Your task to perform on an android device: toggle wifi Image 0: 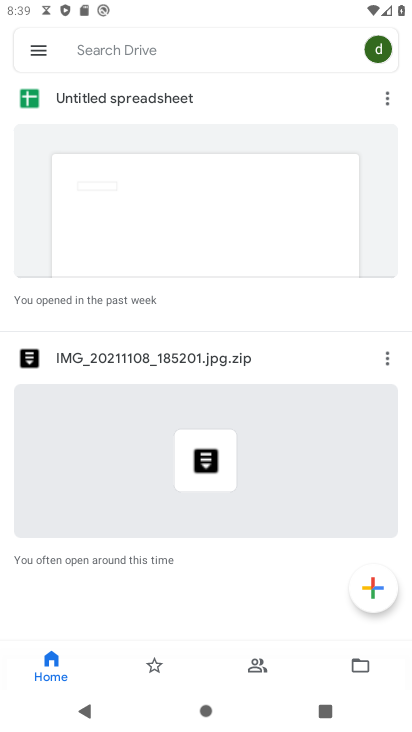
Step 0: press back button
Your task to perform on an android device: toggle wifi Image 1: 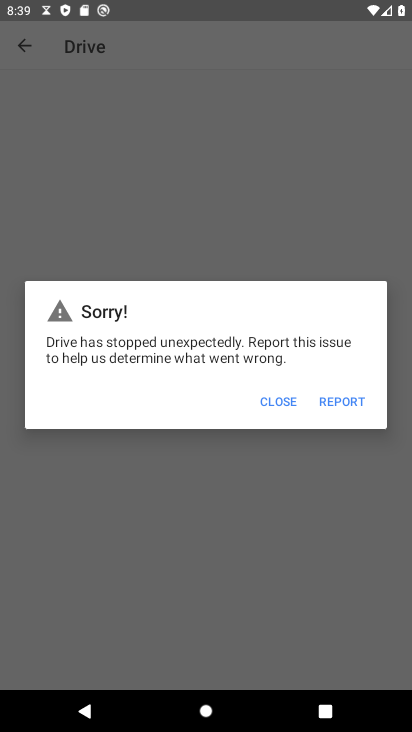
Step 1: press home button
Your task to perform on an android device: toggle wifi Image 2: 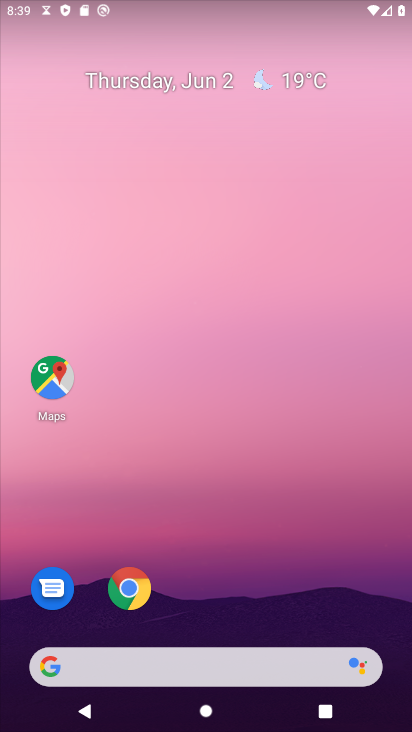
Step 2: drag from (137, 27) to (166, 476)
Your task to perform on an android device: toggle wifi Image 3: 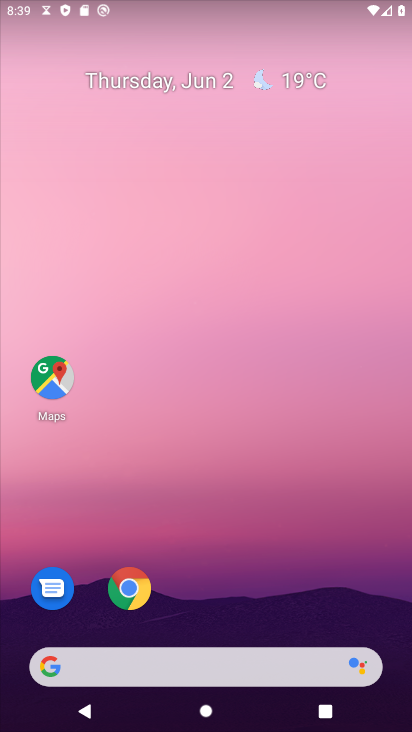
Step 3: drag from (87, 9) to (127, 618)
Your task to perform on an android device: toggle wifi Image 4: 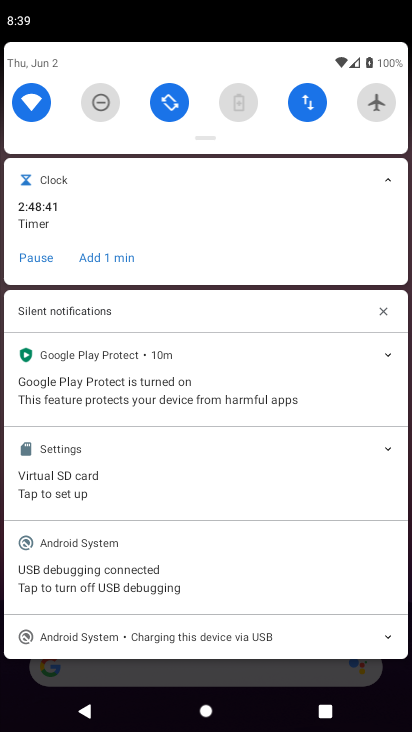
Step 4: click (33, 96)
Your task to perform on an android device: toggle wifi Image 5: 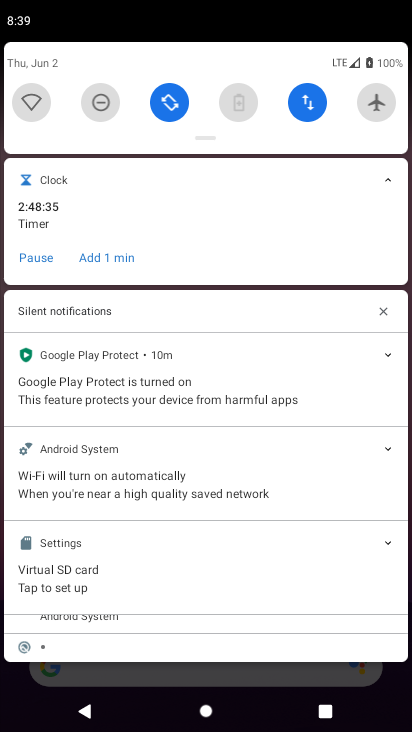
Step 5: task complete